Your task to perform on an android device: change the clock style Image 0: 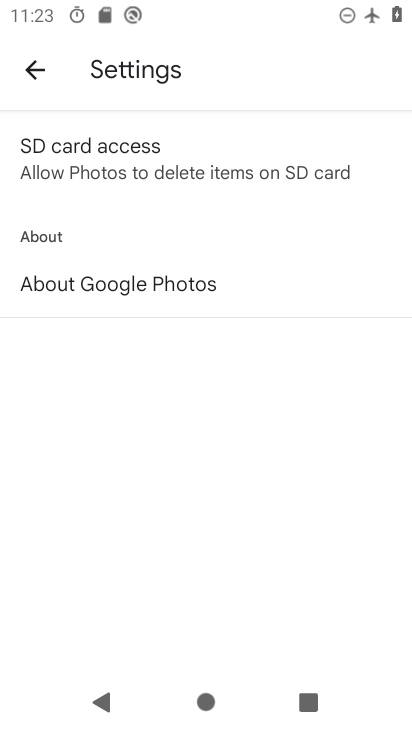
Step 0: press home button
Your task to perform on an android device: change the clock style Image 1: 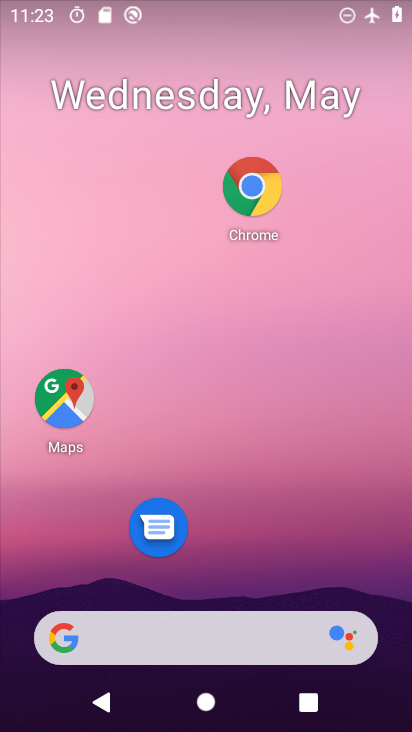
Step 1: drag from (260, 627) to (274, 156)
Your task to perform on an android device: change the clock style Image 2: 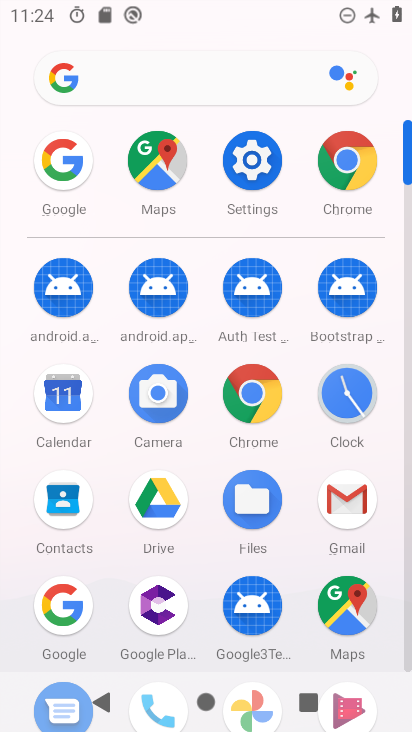
Step 2: click (345, 373)
Your task to perform on an android device: change the clock style Image 3: 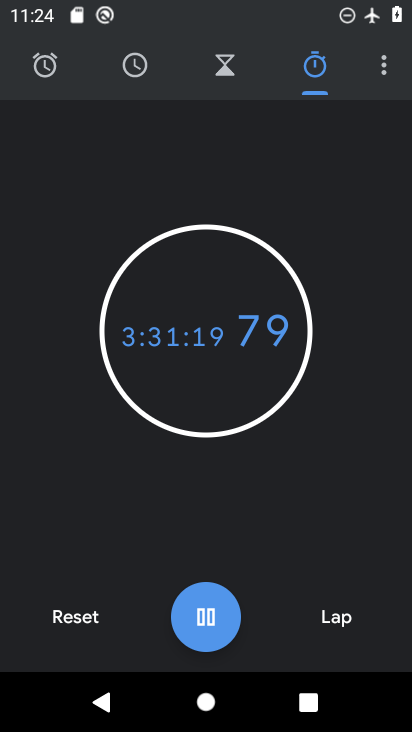
Step 3: click (393, 49)
Your task to perform on an android device: change the clock style Image 4: 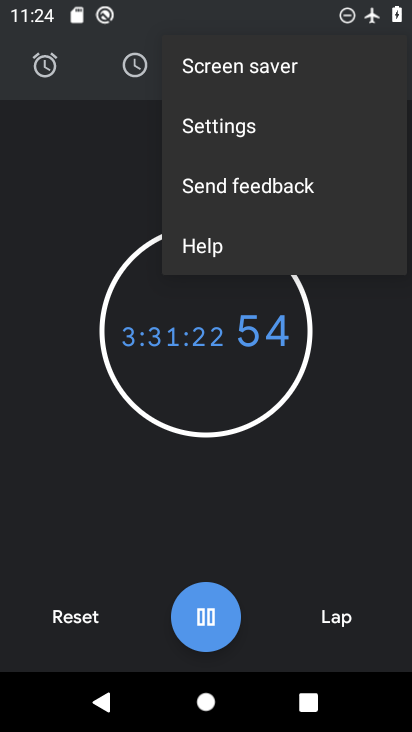
Step 4: click (271, 122)
Your task to perform on an android device: change the clock style Image 5: 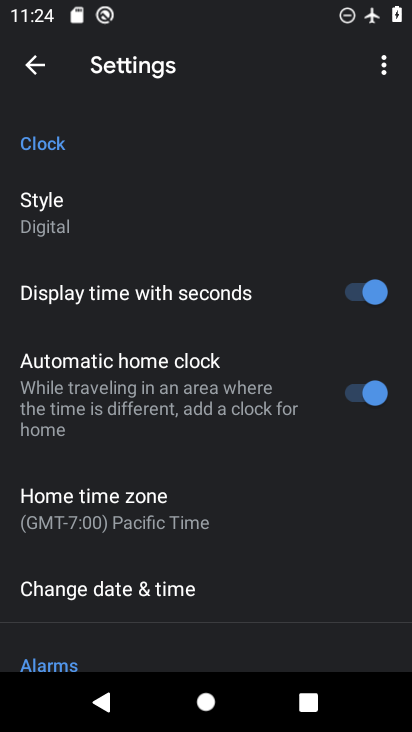
Step 5: click (137, 195)
Your task to perform on an android device: change the clock style Image 6: 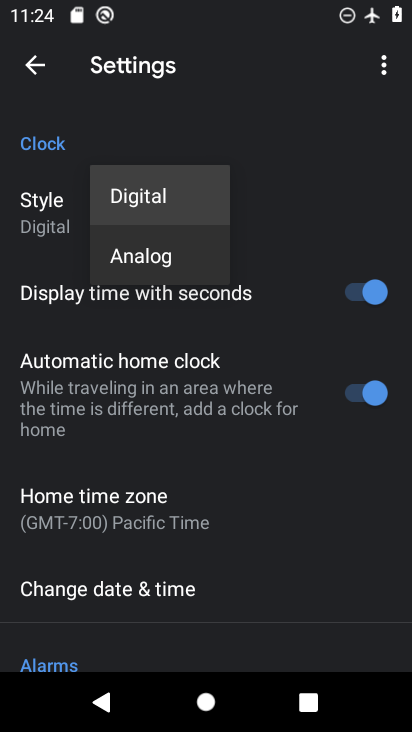
Step 6: click (164, 254)
Your task to perform on an android device: change the clock style Image 7: 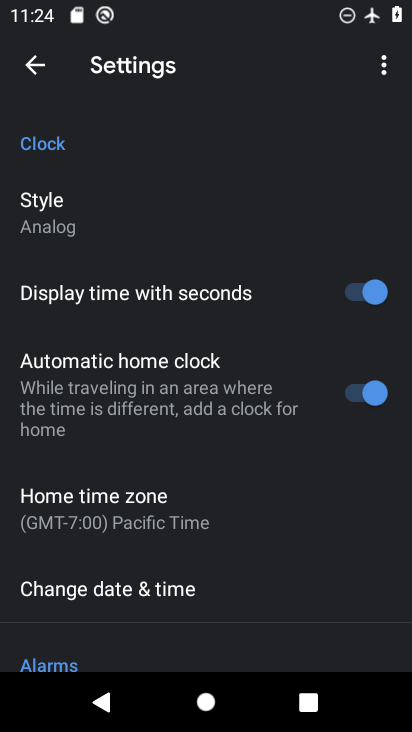
Step 7: task complete